Your task to perform on an android device: Go to CNN.com Image 0: 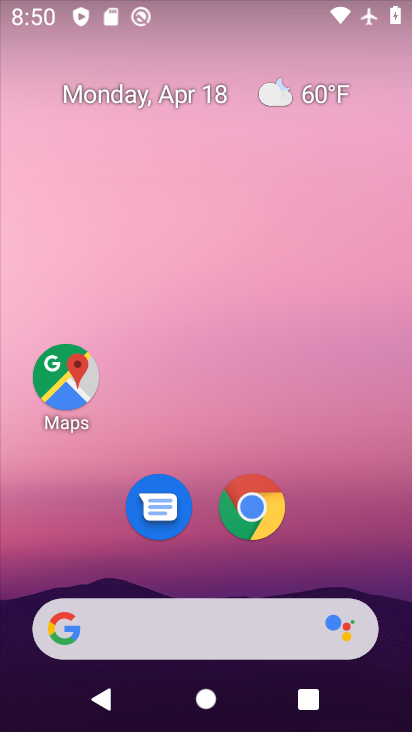
Step 0: click (203, 627)
Your task to perform on an android device: Go to CNN.com Image 1: 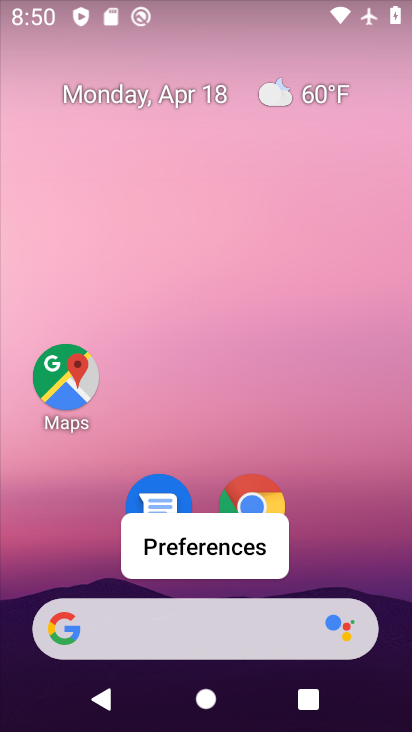
Step 1: click (263, 499)
Your task to perform on an android device: Go to CNN.com Image 2: 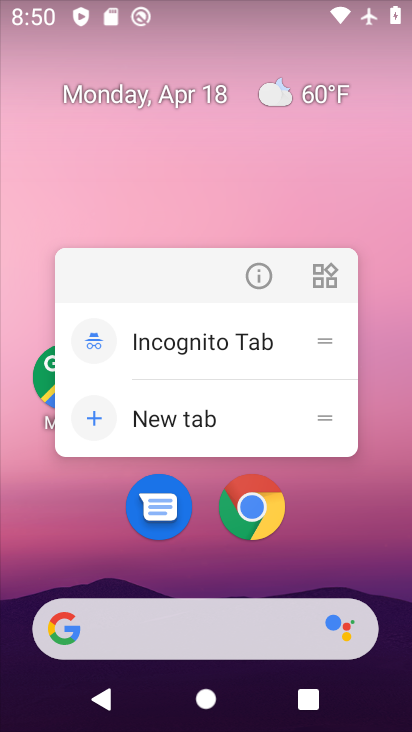
Step 2: click (269, 513)
Your task to perform on an android device: Go to CNN.com Image 3: 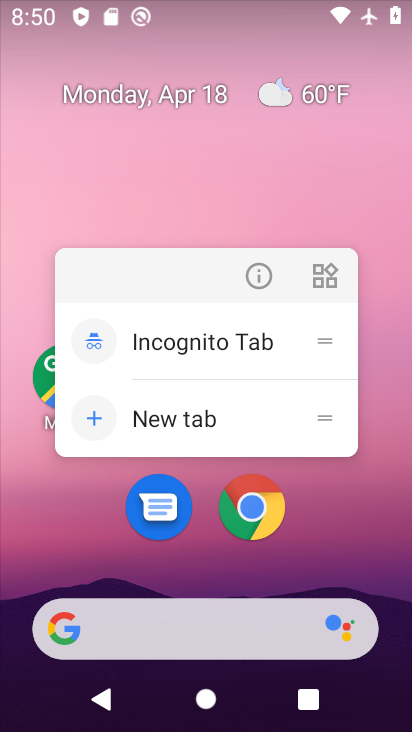
Step 3: click (270, 510)
Your task to perform on an android device: Go to CNN.com Image 4: 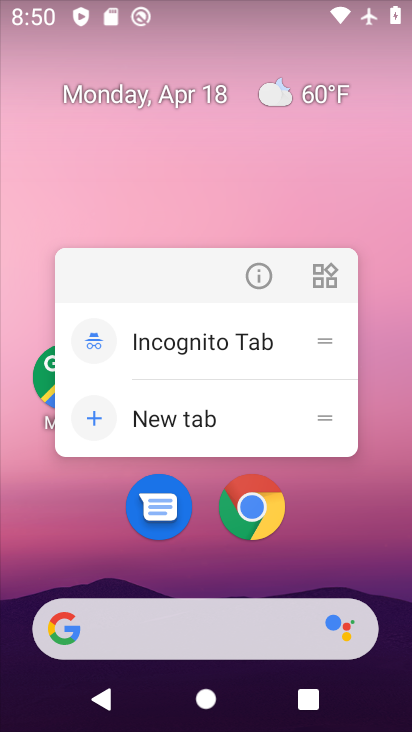
Step 4: click (262, 525)
Your task to perform on an android device: Go to CNN.com Image 5: 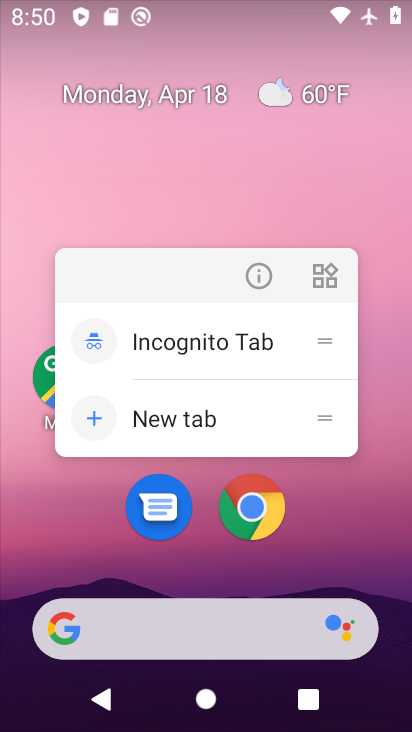
Step 5: click (262, 526)
Your task to perform on an android device: Go to CNN.com Image 6: 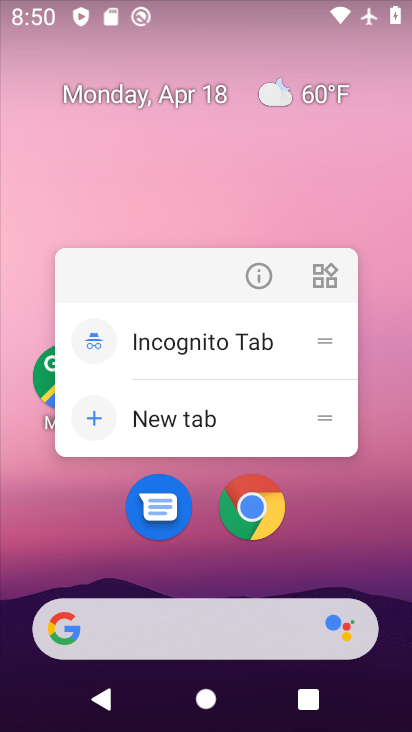
Step 6: click (263, 527)
Your task to perform on an android device: Go to CNN.com Image 7: 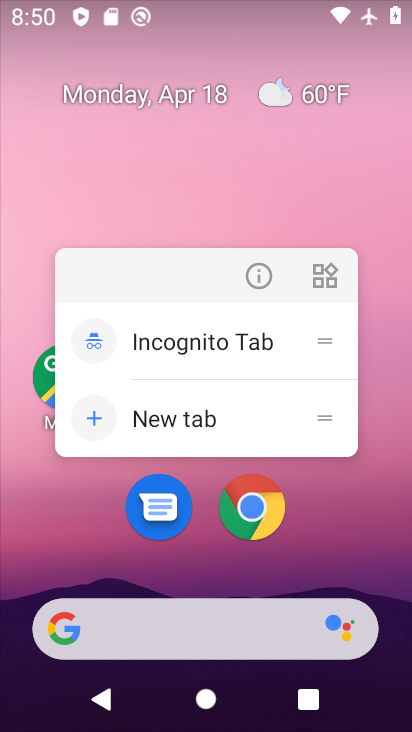
Step 7: click (271, 511)
Your task to perform on an android device: Go to CNN.com Image 8: 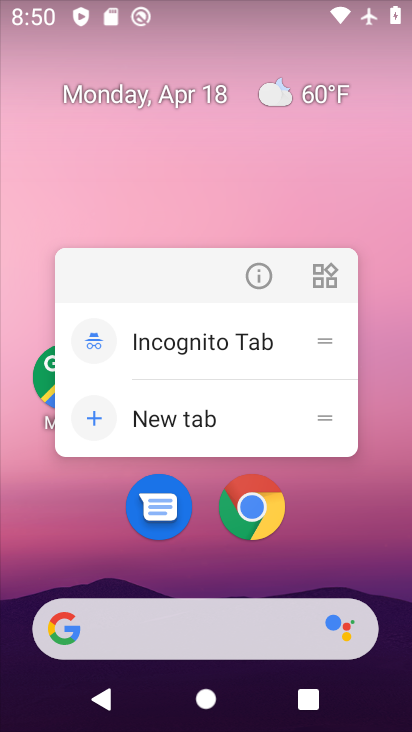
Step 8: click (239, 529)
Your task to perform on an android device: Go to CNN.com Image 9: 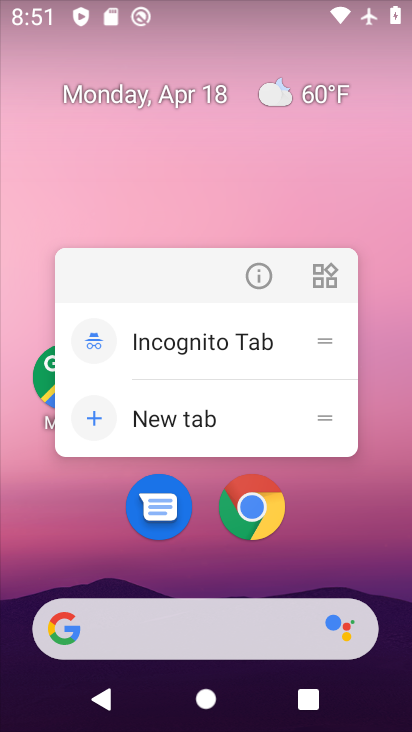
Step 9: click (244, 523)
Your task to perform on an android device: Go to CNN.com Image 10: 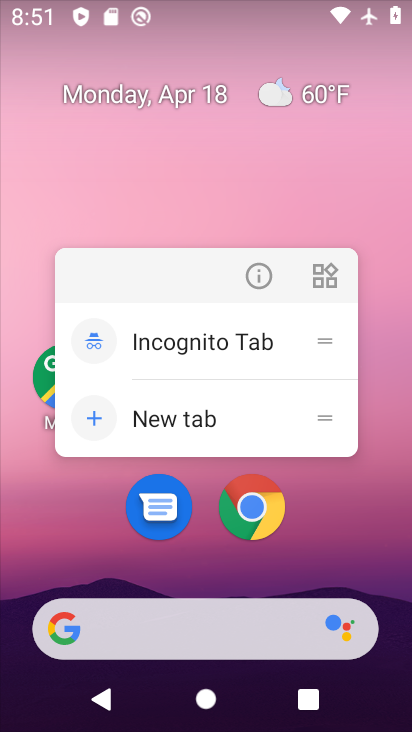
Step 10: click (244, 523)
Your task to perform on an android device: Go to CNN.com Image 11: 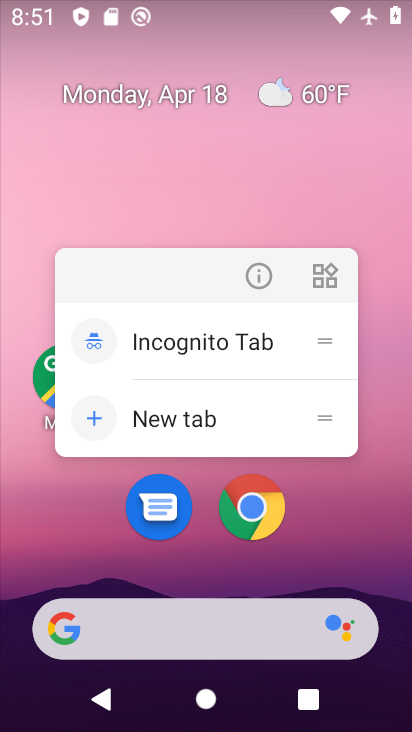
Step 11: click (255, 514)
Your task to perform on an android device: Go to CNN.com Image 12: 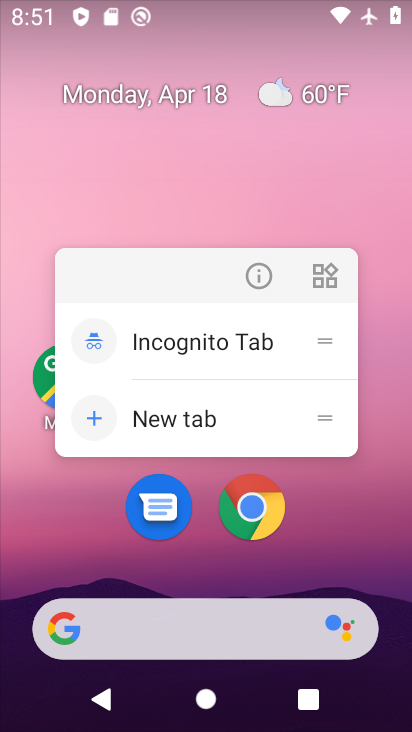
Step 12: click (255, 514)
Your task to perform on an android device: Go to CNN.com Image 13: 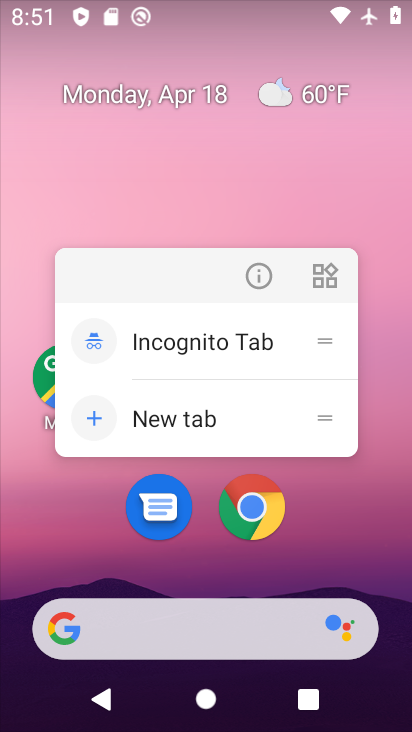
Step 13: click (255, 514)
Your task to perform on an android device: Go to CNN.com Image 14: 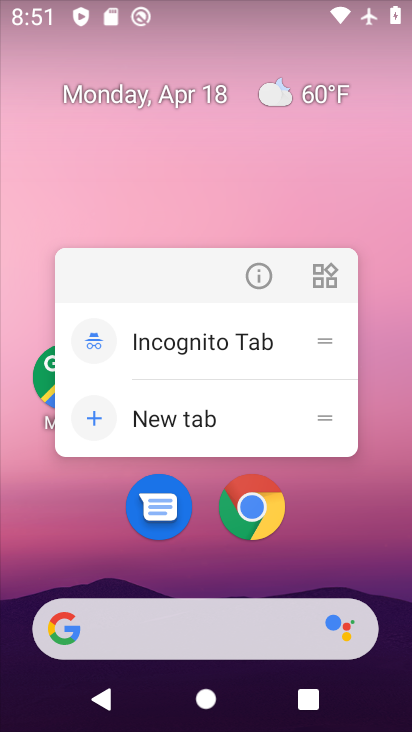
Step 14: click (249, 517)
Your task to perform on an android device: Go to CNN.com Image 15: 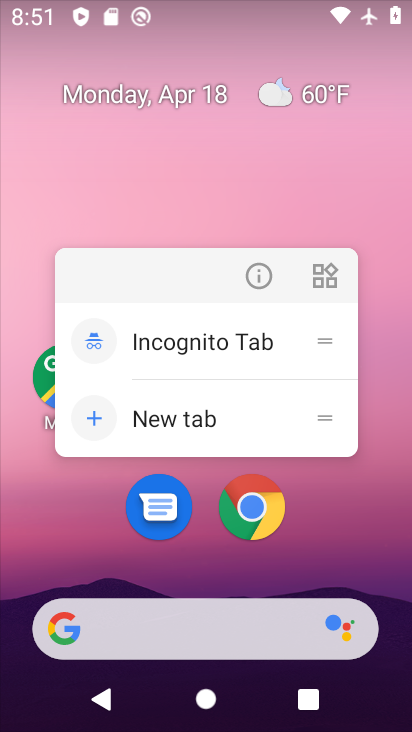
Step 15: click (249, 517)
Your task to perform on an android device: Go to CNN.com Image 16: 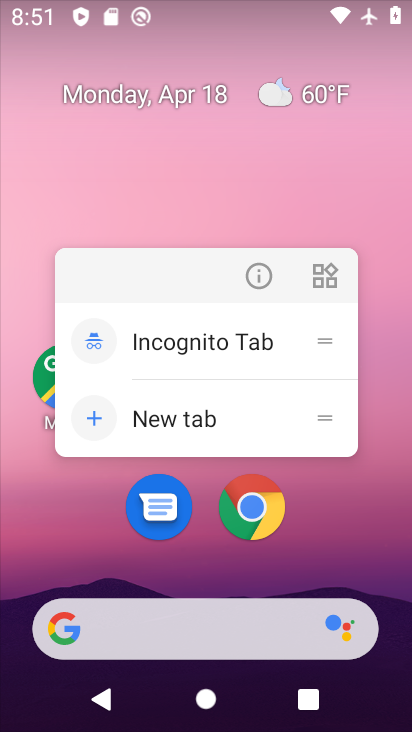
Step 16: click (332, 568)
Your task to perform on an android device: Go to CNN.com Image 17: 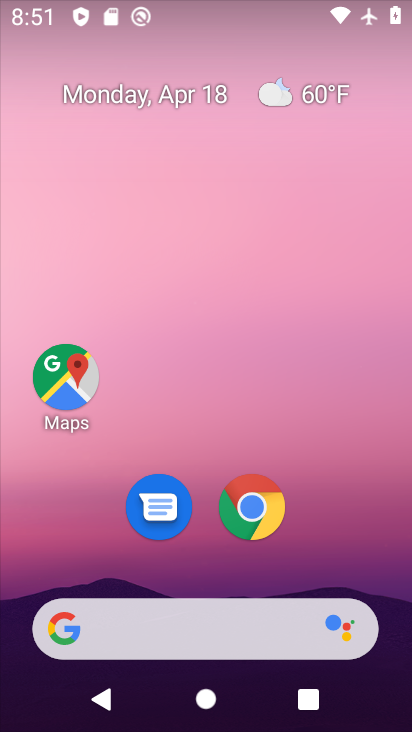
Step 17: click (253, 532)
Your task to perform on an android device: Go to CNN.com Image 18: 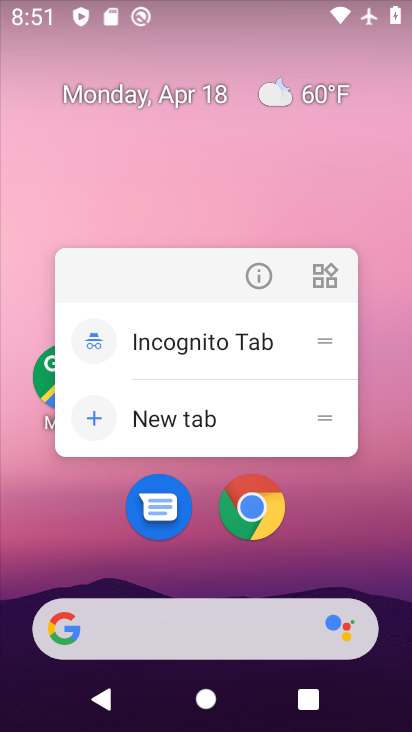
Step 18: click (260, 528)
Your task to perform on an android device: Go to CNN.com Image 19: 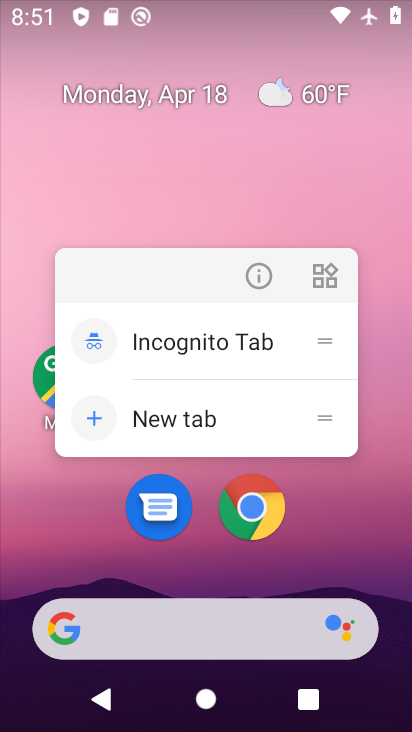
Step 19: click (262, 507)
Your task to perform on an android device: Go to CNN.com Image 20: 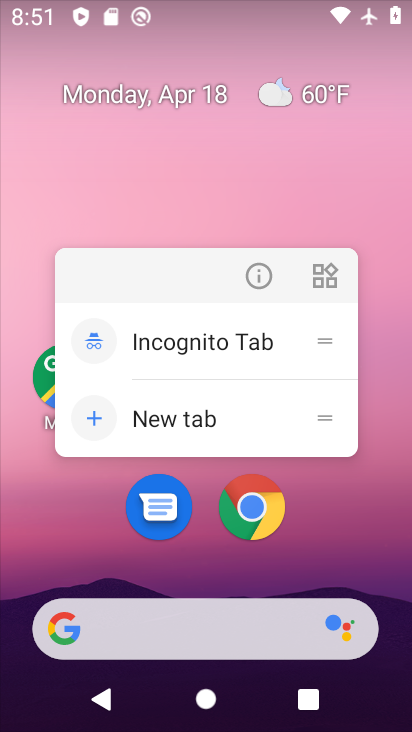
Step 20: click (262, 507)
Your task to perform on an android device: Go to CNN.com Image 21: 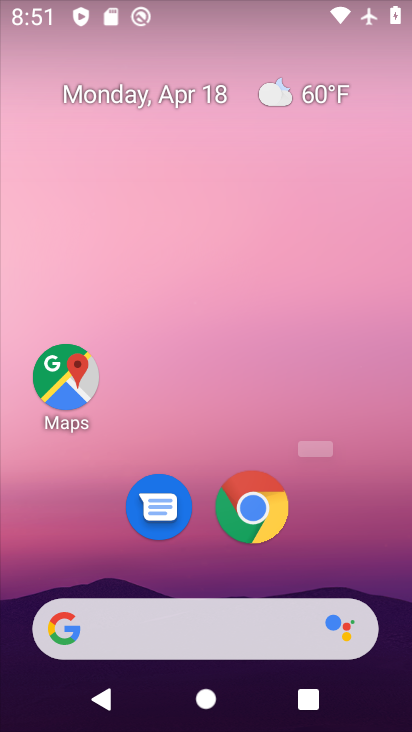
Step 21: click (262, 507)
Your task to perform on an android device: Go to CNN.com Image 22: 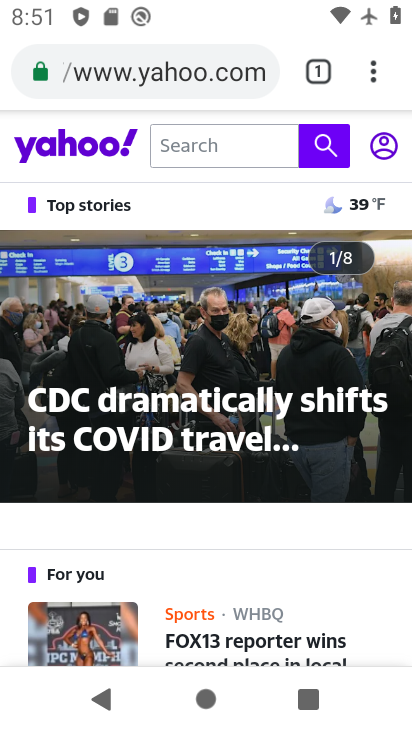
Step 22: click (159, 71)
Your task to perform on an android device: Go to CNN.com Image 23: 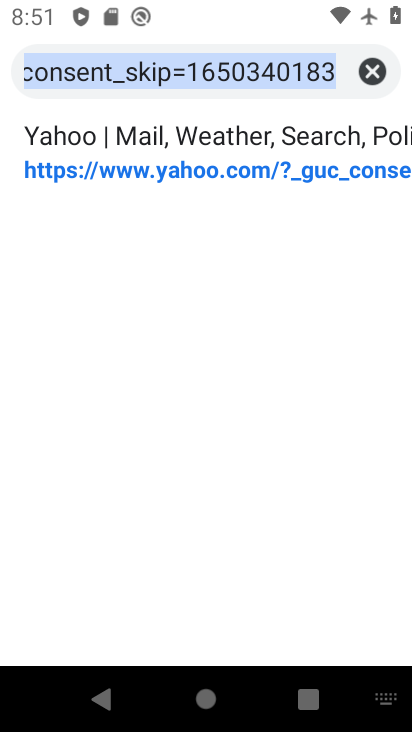
Step 23: type "CNN.com"
Your task to perform on an android device: Go to CNN.com Image 24: 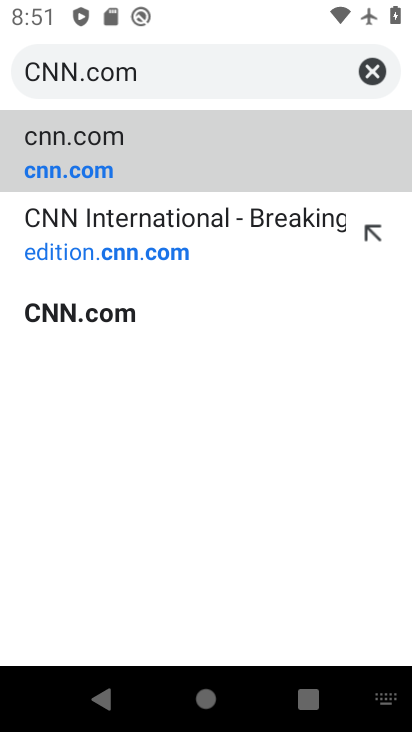
Step 24: click (65, 134)
Your task to perform on an android device: Go to CNN.com Image 25: 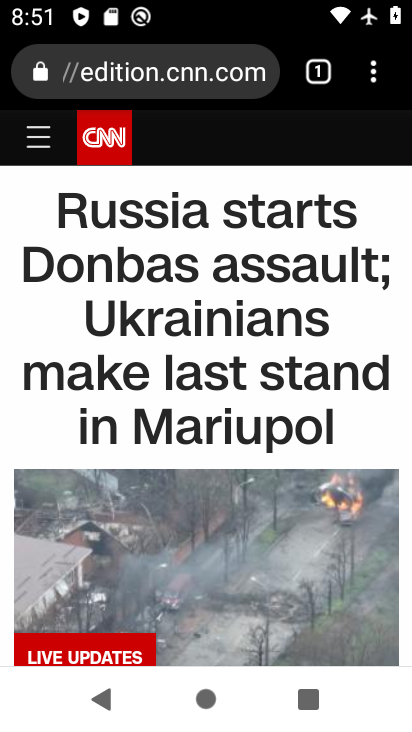
Step 25: task complete